Your task to perform on an android device: install app "Airtel Thanks" Image 0: 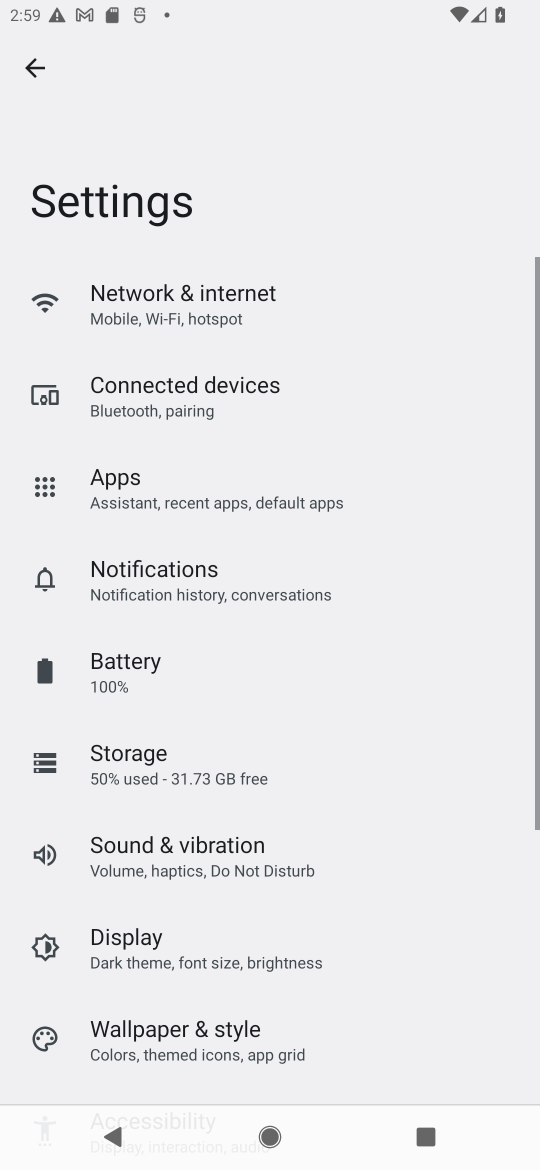
Step 0: press home button
Your task to perform on an android device: install app "Airtel Thanks" Image 1: 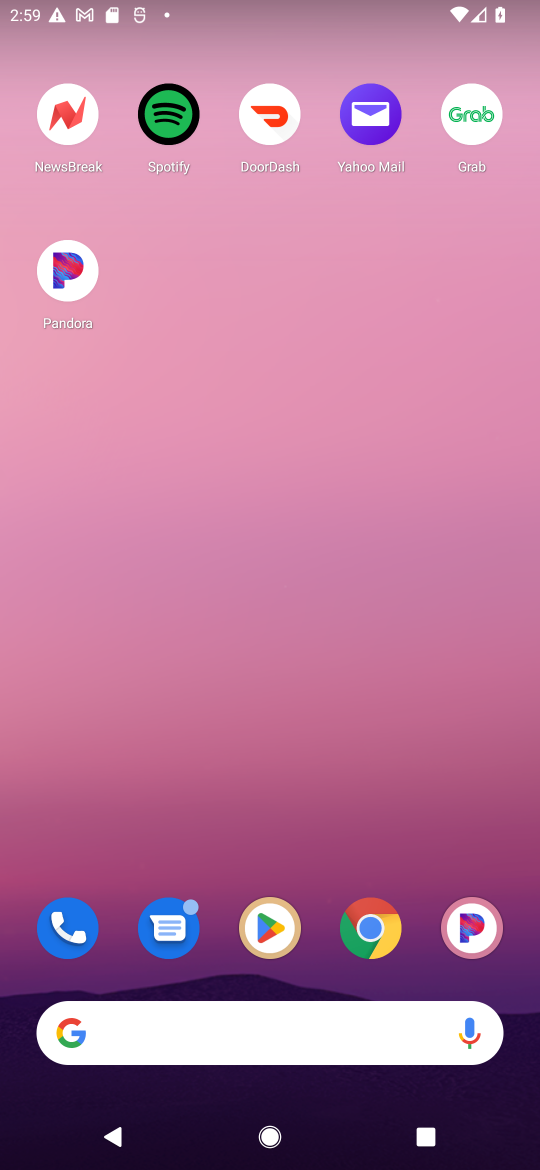
Step 1: click (281, 917)
Your task to perform on an android device: install app "Airtel Thanks" Image 2: 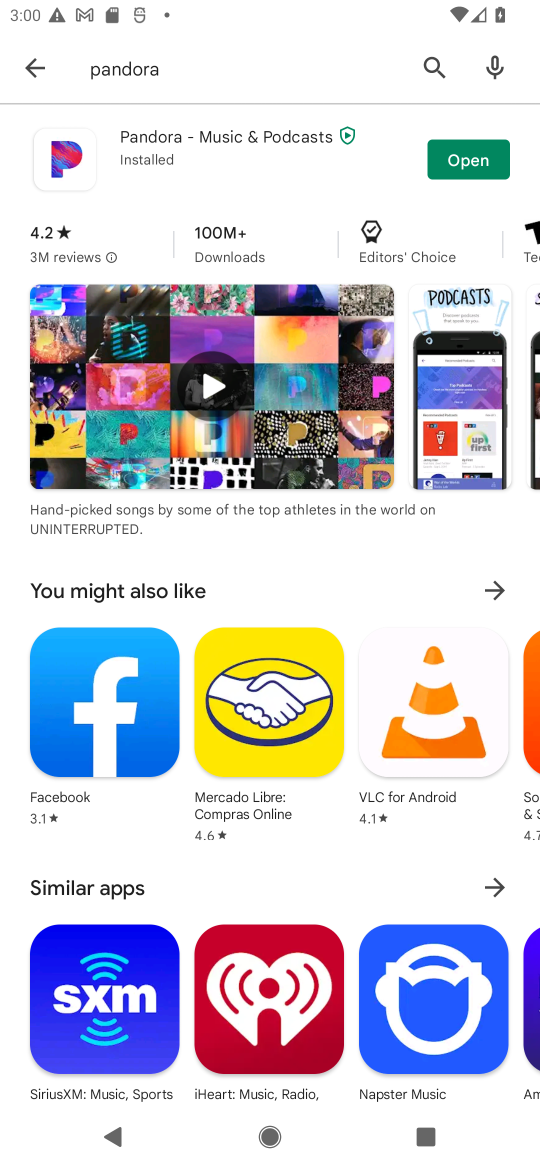
Step 2: click (169, 76)
Your task to perform on an android device: install app "Airtel Thanks" Image 3: 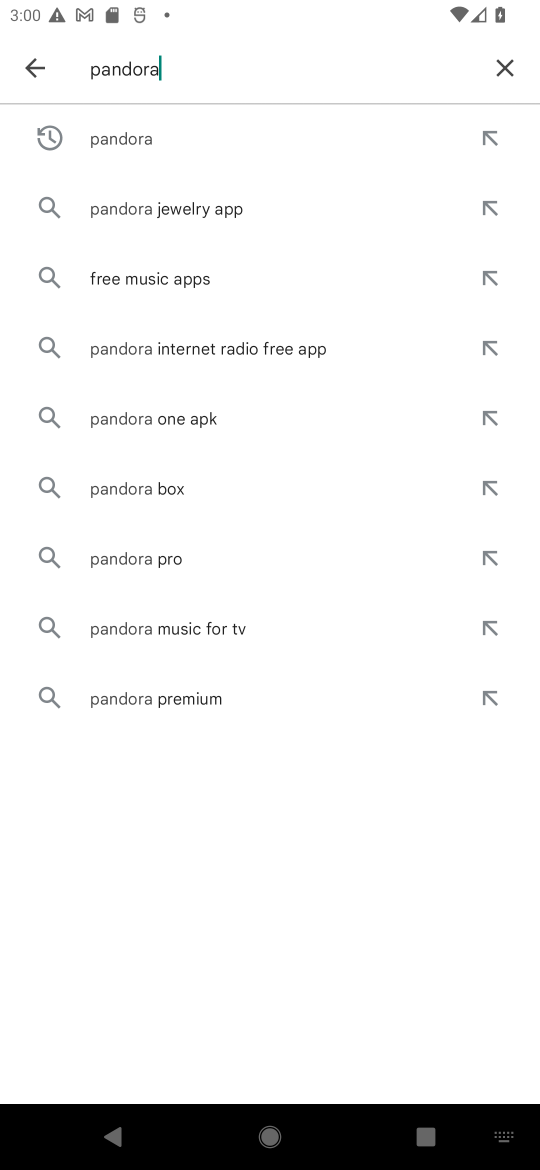
Step 3: click (500, 65)
Your task to perform on an android device: install app "Airtel Thanks" Image 4: 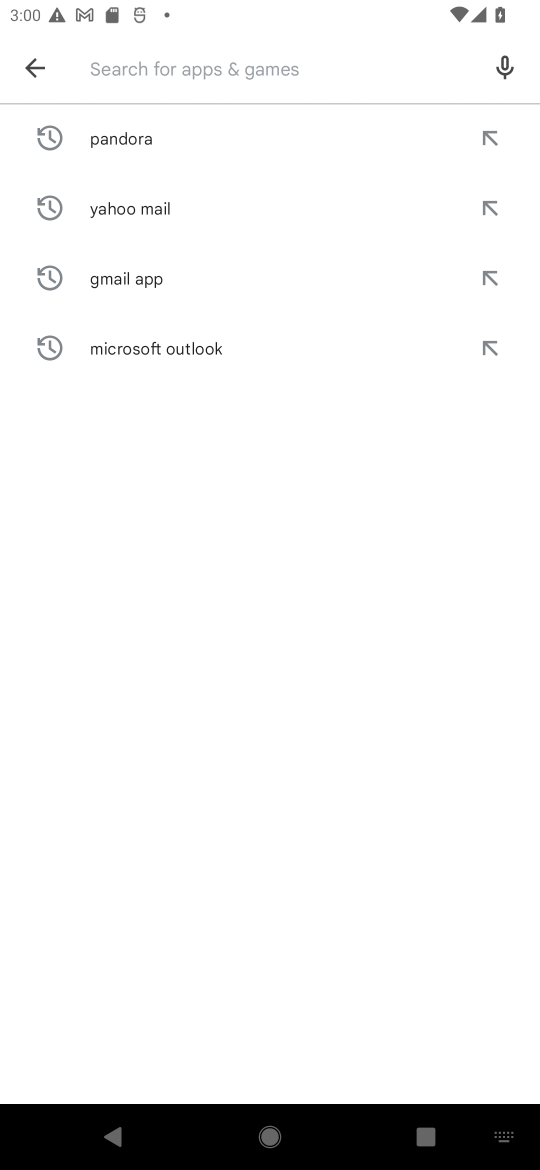
Step 4: type "Airtel Thanks"
Your task to perform on an android device: install app "Airtel Thanks" Image 5: 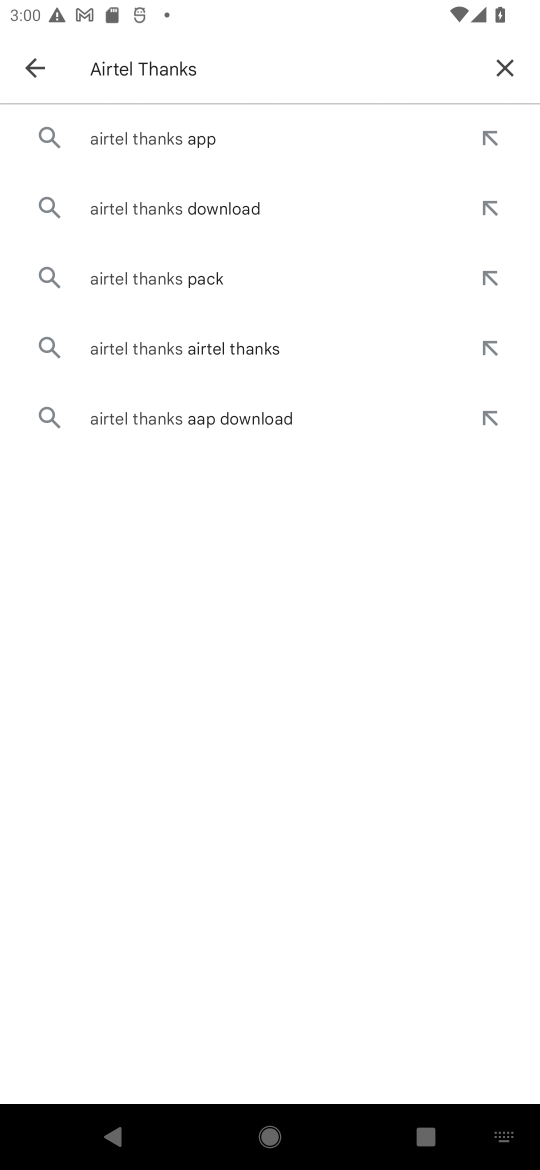
Step 5: click (146, 128)
Your task to perform on an android device: install app "Airtel Thanks" Image 6: 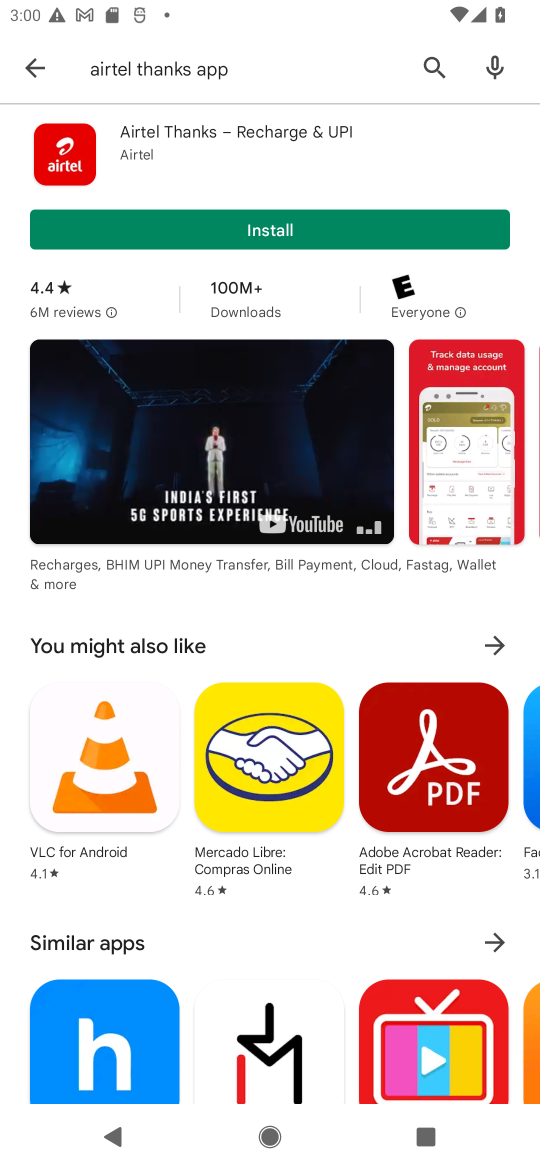
Step 6: click (244, 225)
Your task to perform on an android device: install app "Airtel Thanks" Image 7: 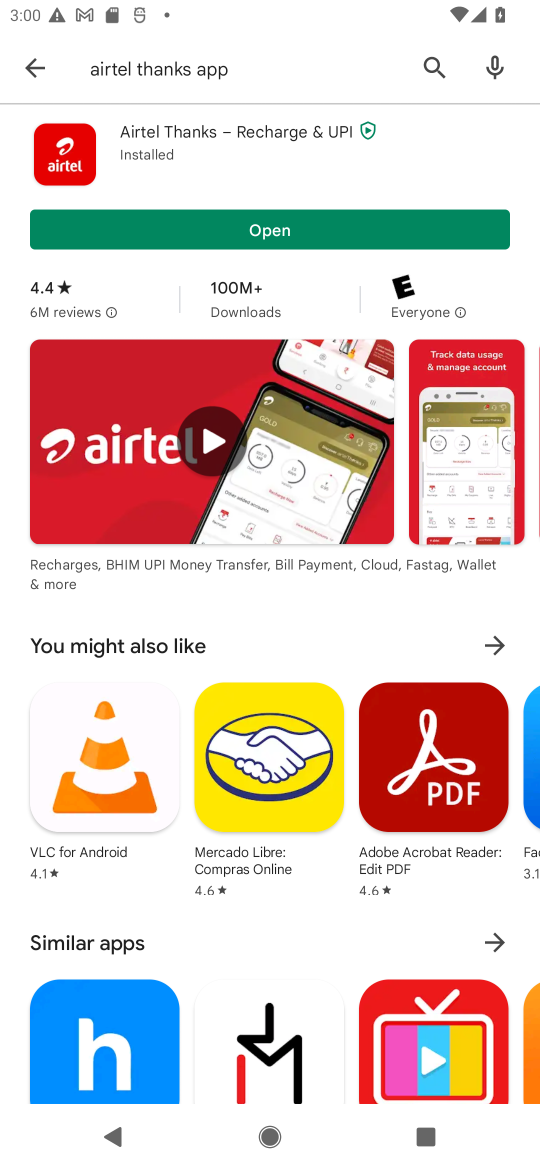
Step 7: task complete